Your task to perform on an android device: turn on airplane mode Image 0: 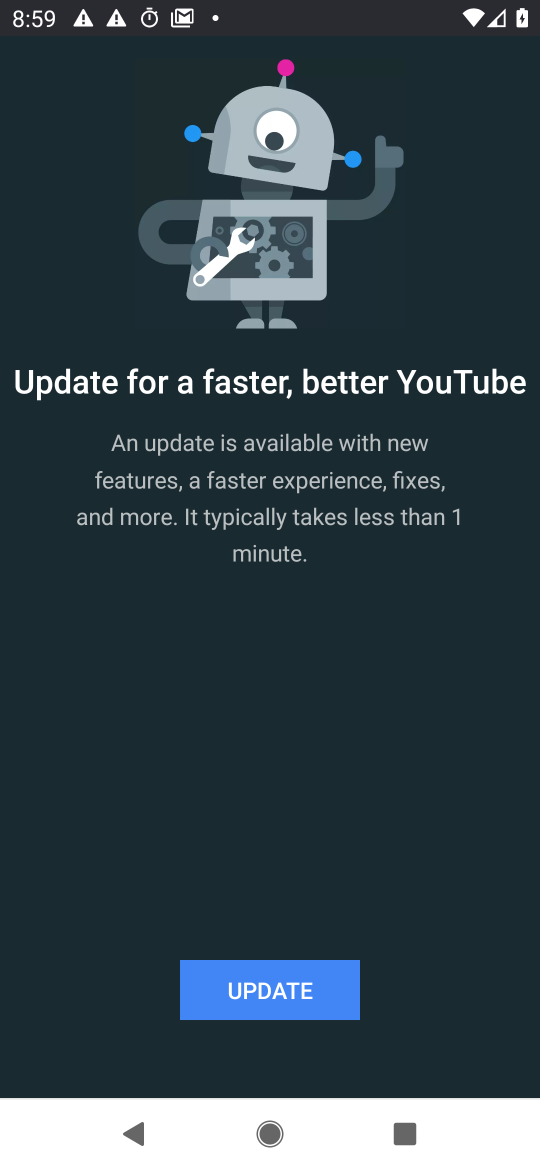
Step 0: press back button
Your task to perform on an android device: turn on airplane mode Image 1: 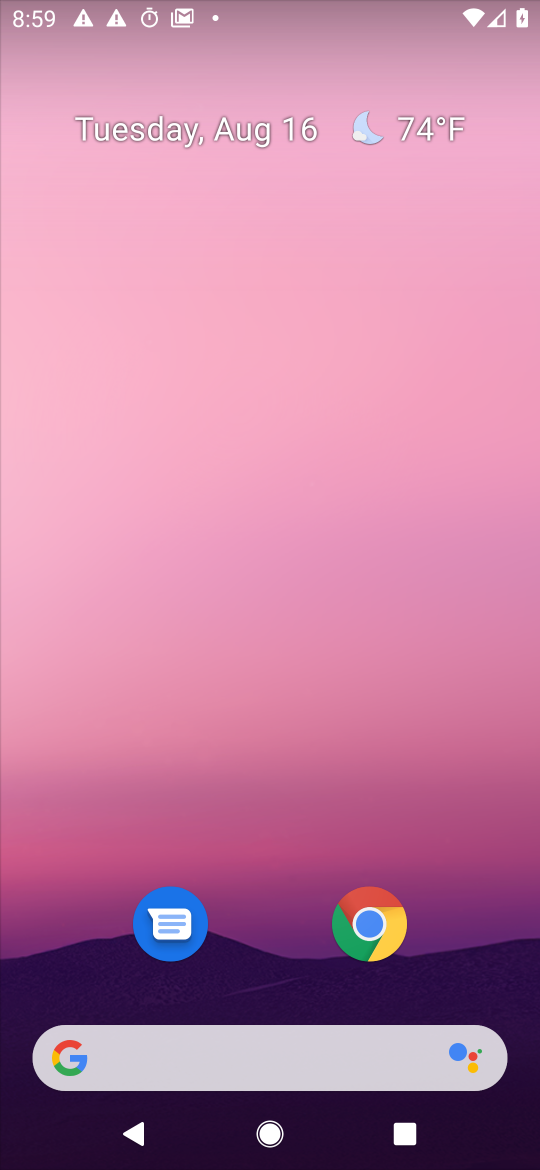
Step 1: drag from (490, 27) to (261, 827)
Your task to perform on an android device: turn on airplane mode Image 2: 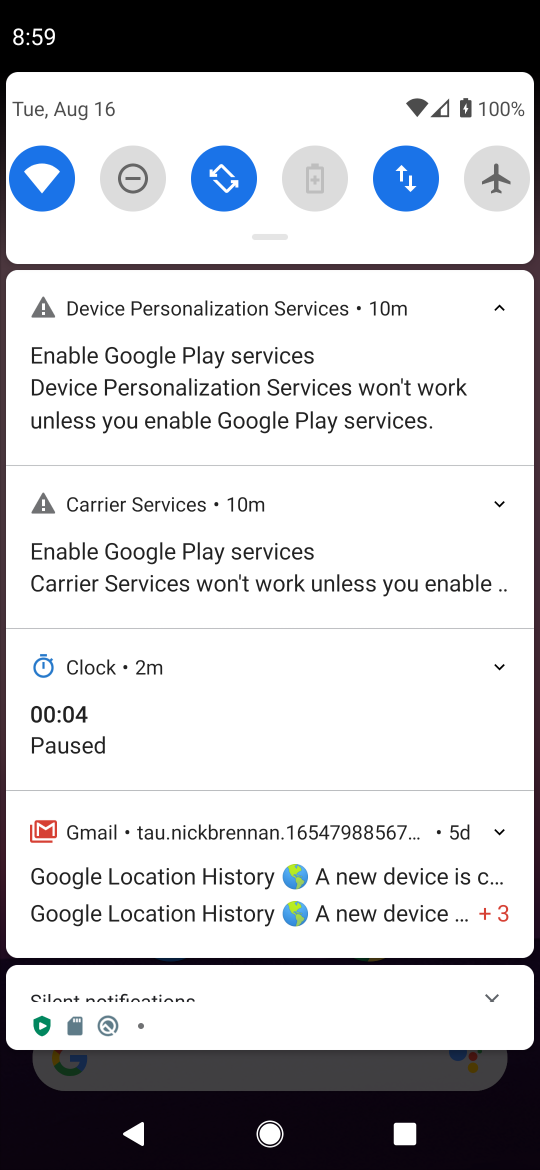
Step 2: click (498, 183)
Your task to perform on an android device: turn on airplane mode Image 3: 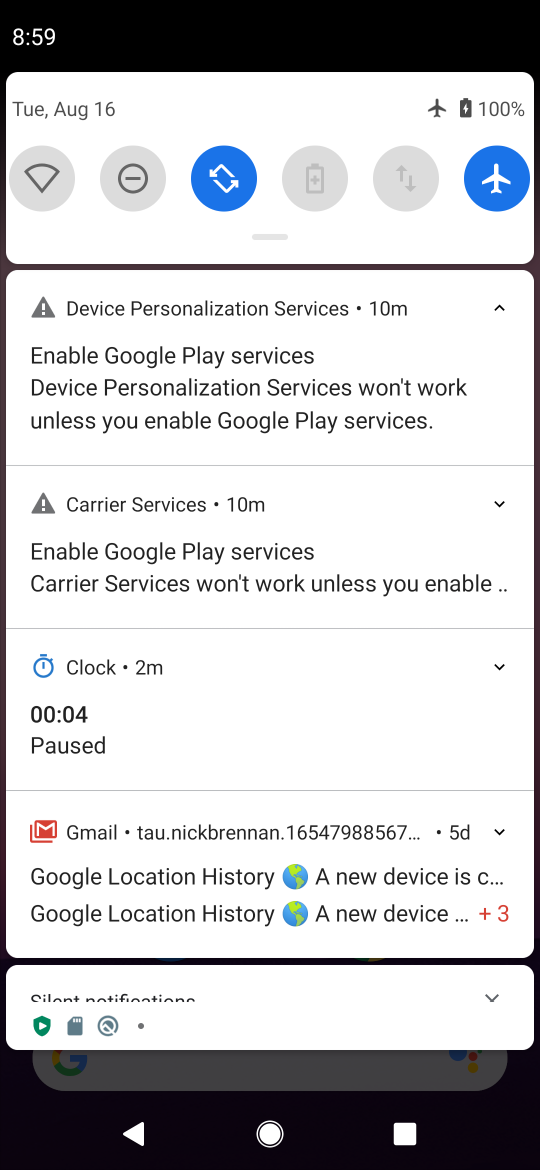
Step 3: task complete